Your task to perform on an android device: Open my contact list Image 0: 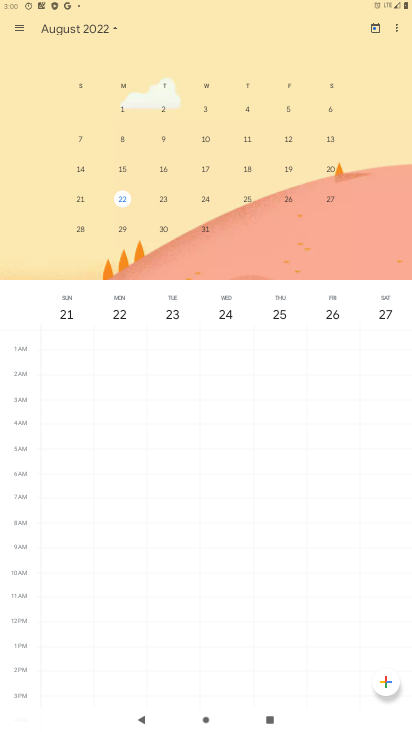
Step 0: press home button
Your task to perform on an android device: Open my contact list Image 1: 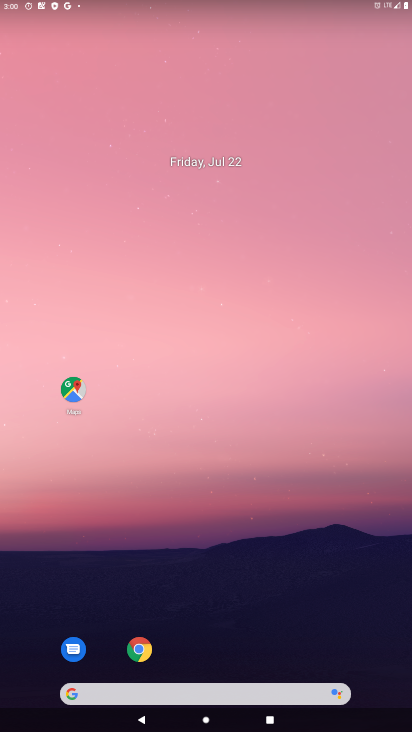
Step 1: drag from (233, 619) to (203, 93)
Your task to perform on an android device: Open my contact list Image 2: 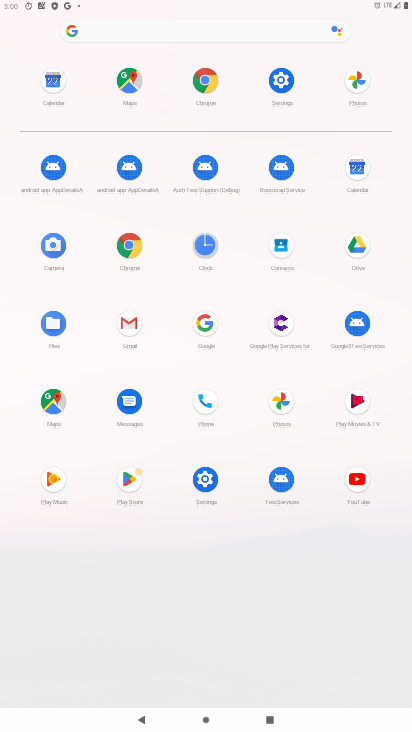
Step 2: click (278, 238)
Your task to perform on an android device: Open my contact list Image 3: 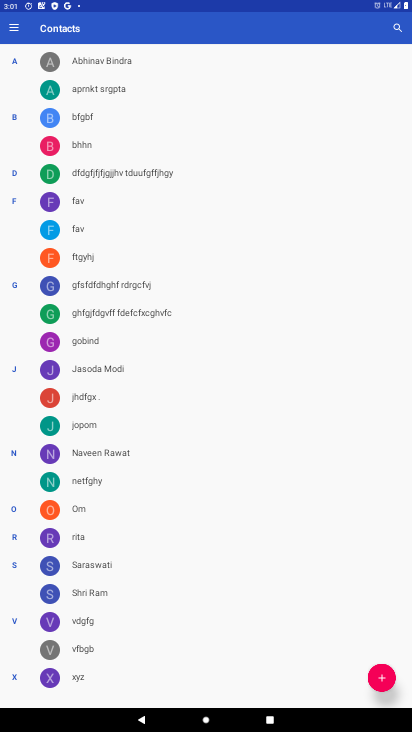
Step 3: task complete